Your task to perform on an android device: move an email to a new category in the gmail app Image 0: 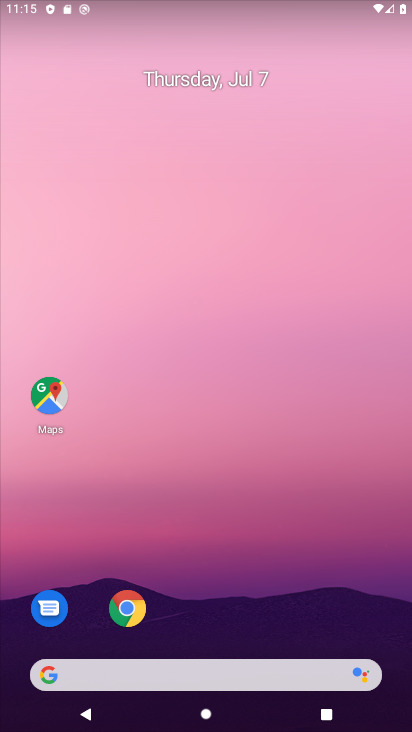
Step 0: drag from (274, 717) to (175, 179)
Your task to perform on an android device: move an email to a new category in the gmail app Image 1: 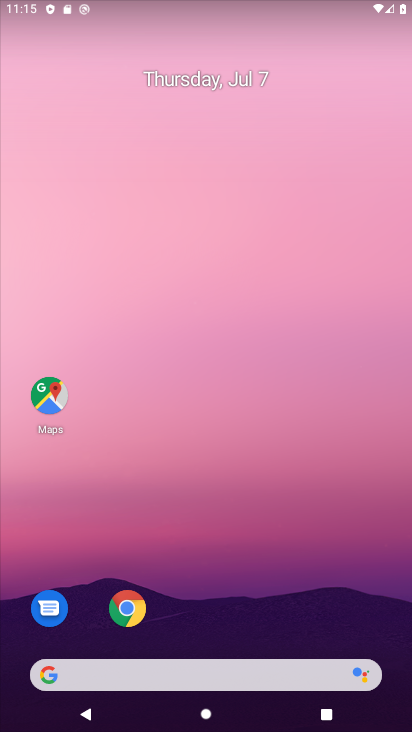
Step 1: drag from (206, 345) to (207, 12)
Your task to perform on an android device: move an email to a new category in the gmail app Image 2: 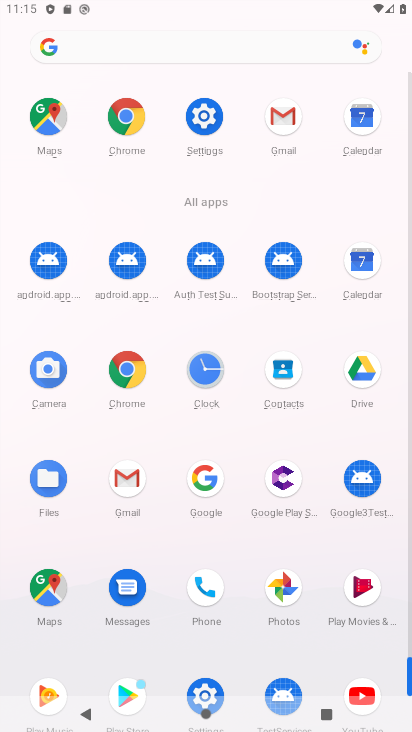
Step 2: click (128, 490)
Your task to perform on an android device: move an email to a new category in the gmail app Image 3: 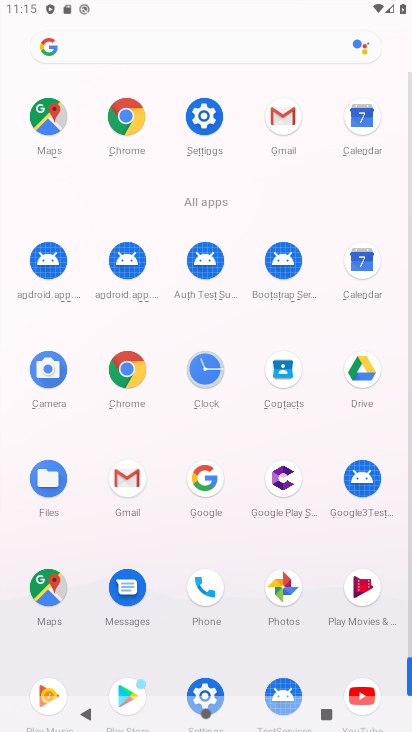
Step 3: click (127, 491)
Your task to perform on an android device: move an email to a new category in the gmail app Image 4: 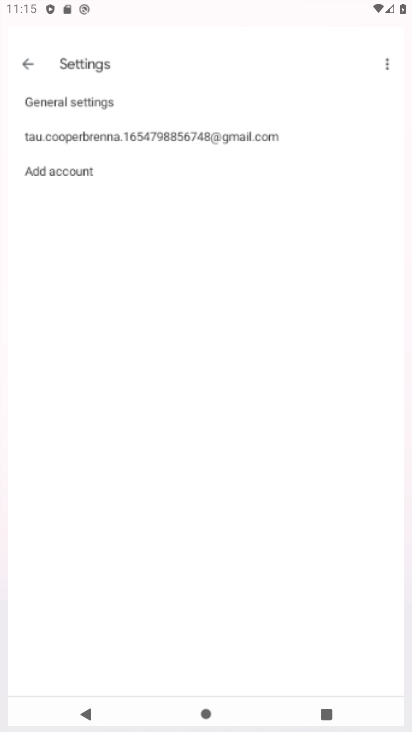
Step 4: click (127, 492)
Your task to perform on an android device: move an email to a new category in the gmail app Image 5: 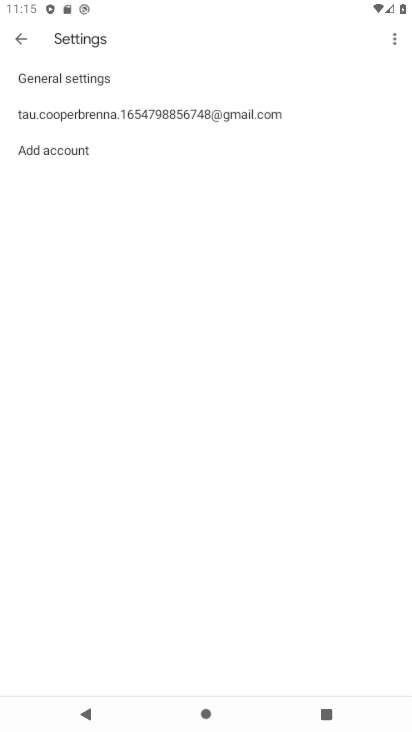
Step 5: click (133, 491)
Your task to perform on an android device: move an email to a new category in the gmail app Image 6: 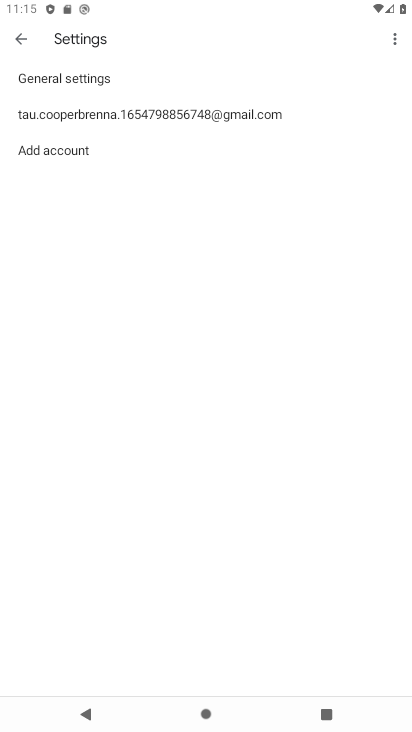
Step 6: click (133, 491)
Your task to perform on an android device: move an email to a new category in the gmail app Image 7: 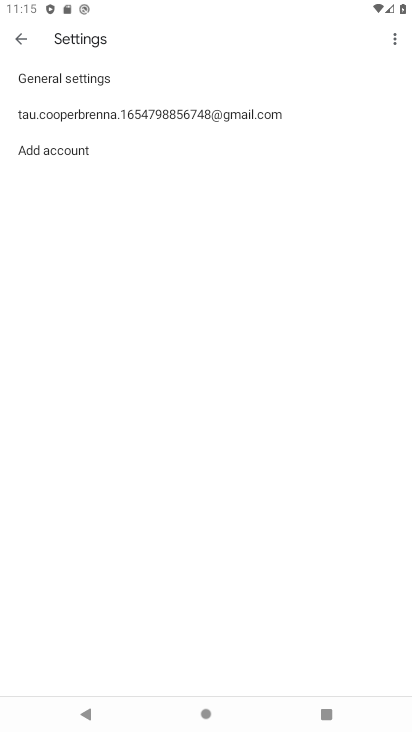
Step 7: click (131, 116)
Your task to perform on an android device: move an email to a new category in the gmail app Image 8: 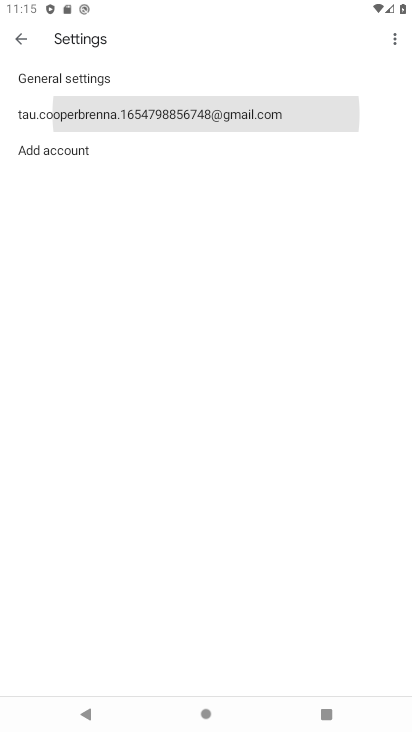
Step 8: click (131, 117)
Your task to perform on an android device: move an email to a new category in the gmail app Image 9: 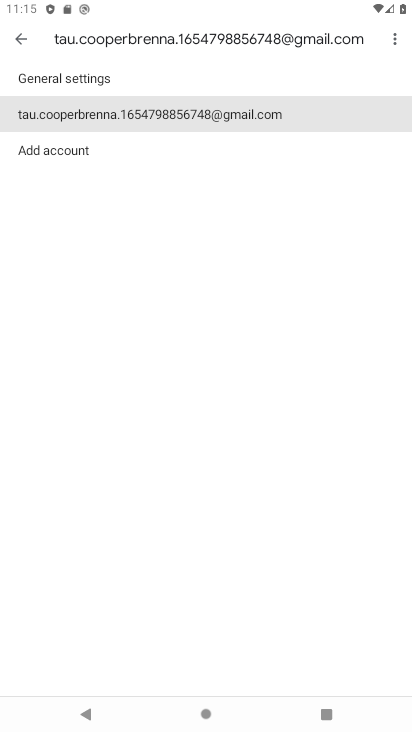
Step 9: click (131, 118)
Your task to perform on an android device: move an email to a new category in the gmail app Image 10: 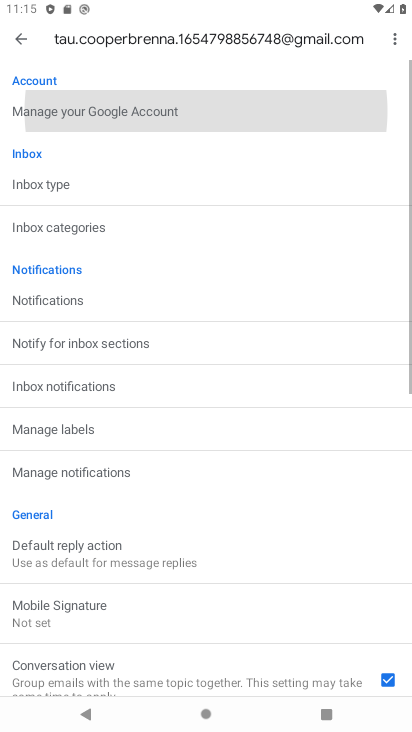
Step 10: click (131, 119)
Your task to perform on an android device: move an email to a new category in the gmail app Image 11: 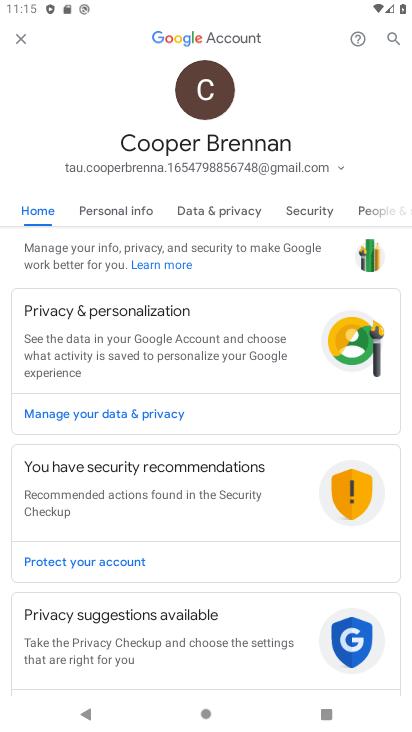
Step 11: task complete